Your task to perform on an android device: set an alarm Image 0: 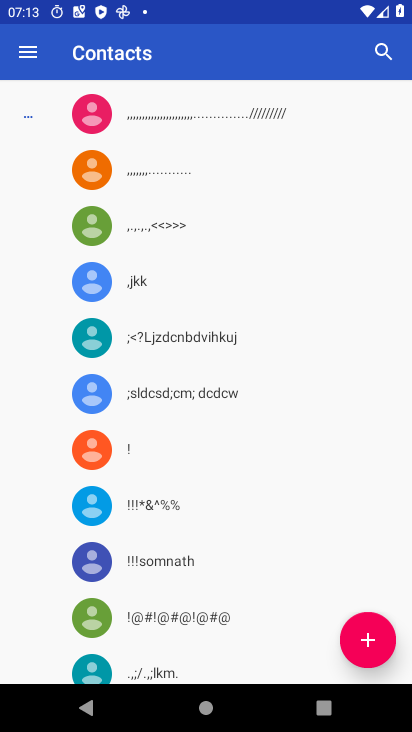
Step 0: drag from (216, 725) to (406, 723)
Your task to perform on an android device: set an alarm Image 1: 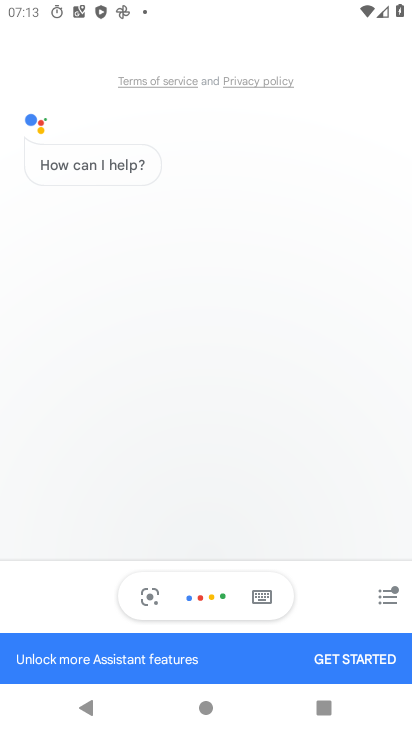
Step 1: press home button
Your task to perform on an android device: set an alarm Image 2: 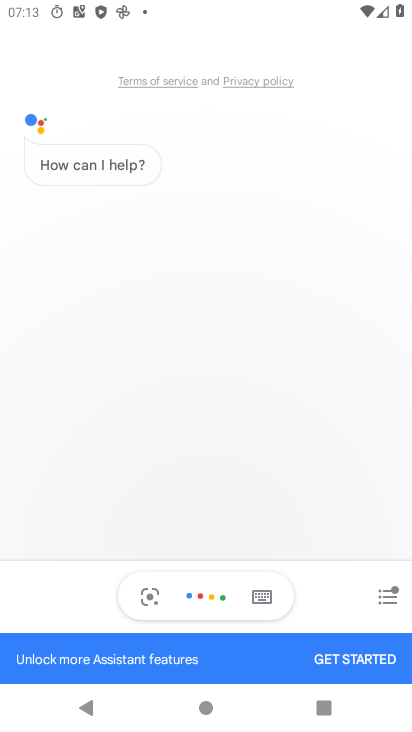
Step 2: drag from (406, 723) to (403, 534)
Your task to perform on an android device: set an alarm Image 3: 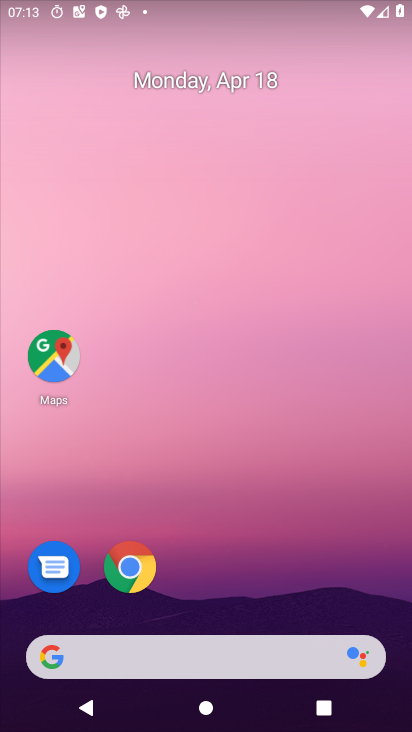
Step 3: drag from (302, 558) to (202, 282)
Your task to perform on an android device: set an alarm Image 4: 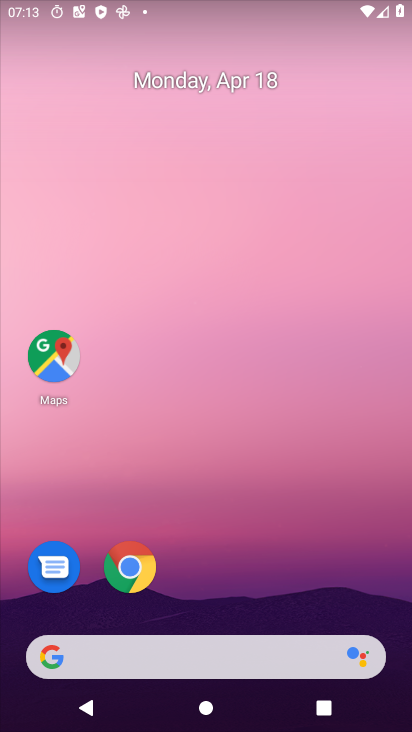
Step 4: drag from (247, 617) to (139, 52)
Your task to perform on an android device: set an alarm Image 5: 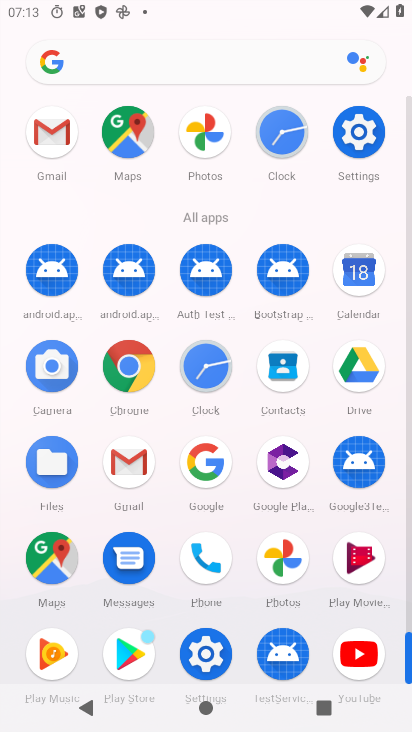
Step 5: click (285, 136)
Your task to perform on an android device: set an alarm Image 6: 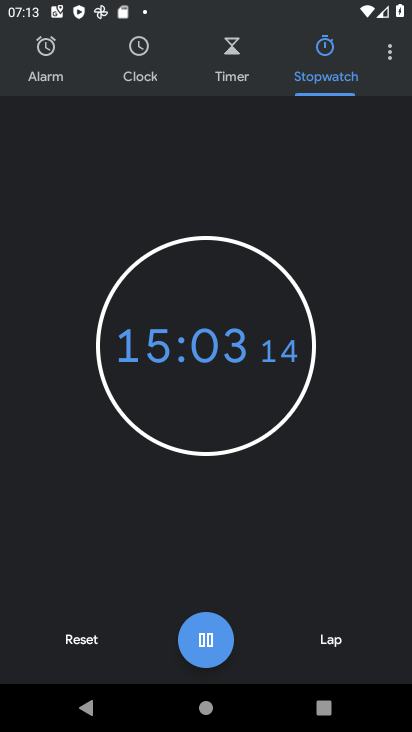
Step 6: click (30, 48)
Your task to perform on an android device: set an alarm Image 7: 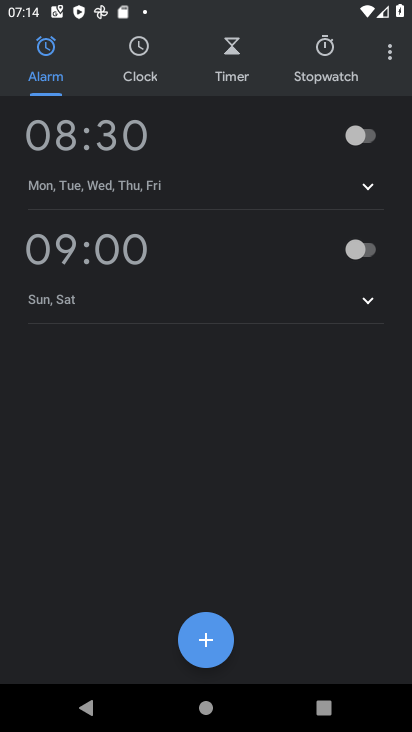
Step 7: click (226, 634)
Your task to perform on an android device: set an alarm Image 8: 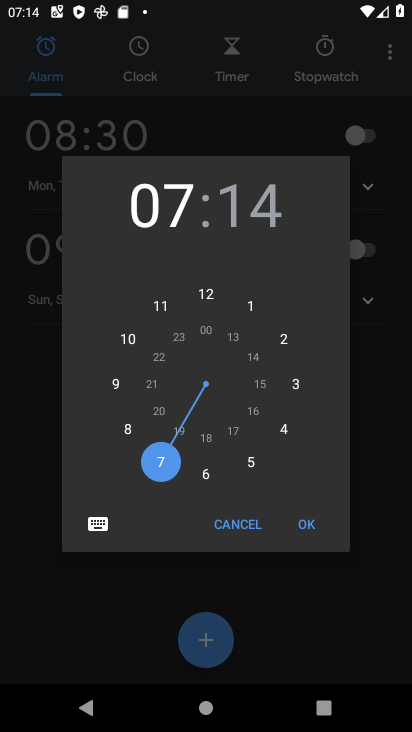
Step 8: click (297, 523)
Your task to perform on an android device: set an alarm Image 9: 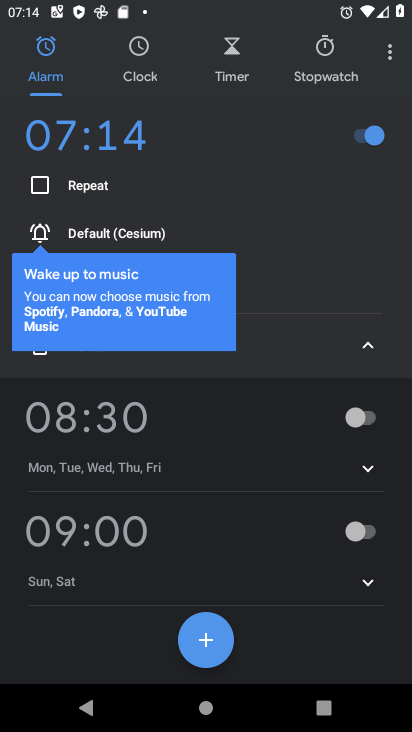
Step 9: task complete